Your task to perform on an android device: Open Google Chrome Image 0: 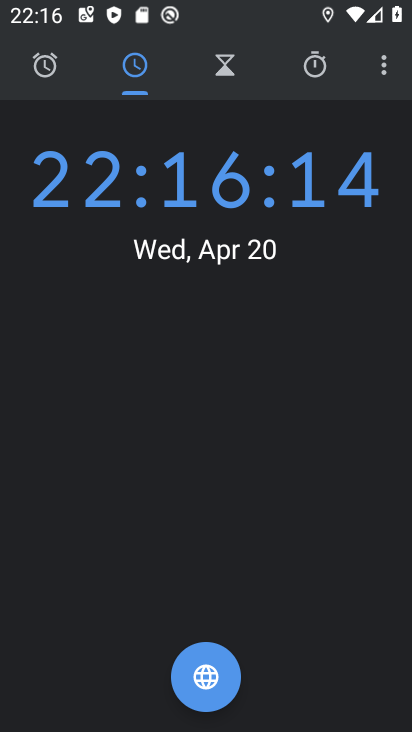
Step 0: press home button
Your task to perform on an android device: Open Google Chrome Image 1: 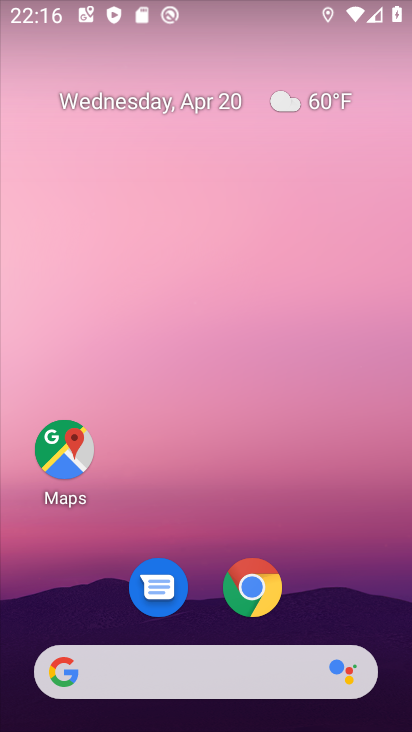
Step 1: click (259, 592)
Your task to perform on an android device: Open Google Chrome Image 2: 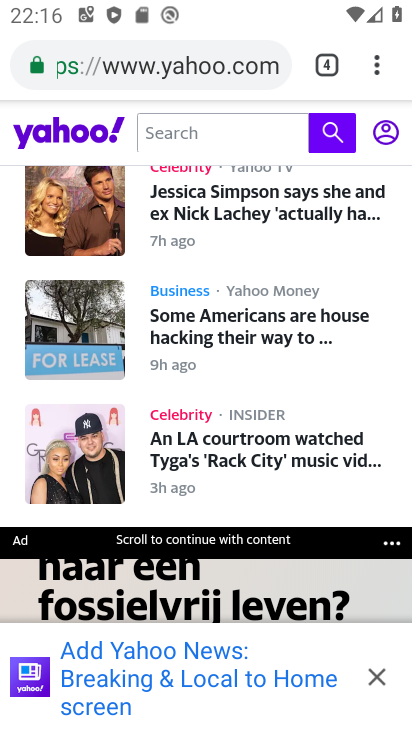
Step 2: task complete